Your task to perform on an android device: Go to network settings Image 0: 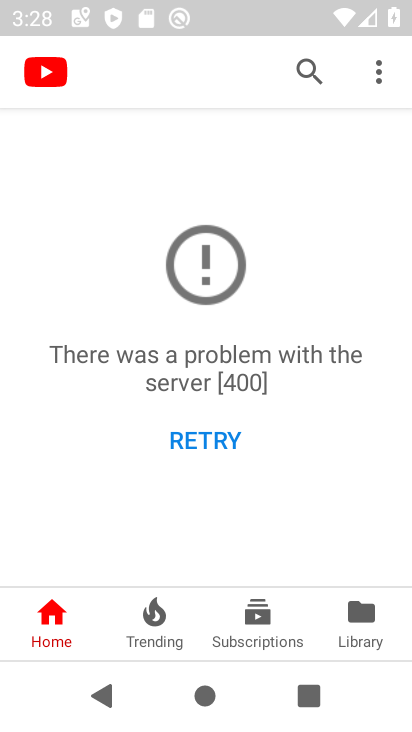
Step 0: press home button
Your task to perform on an android device: Go to network settings Image 1: 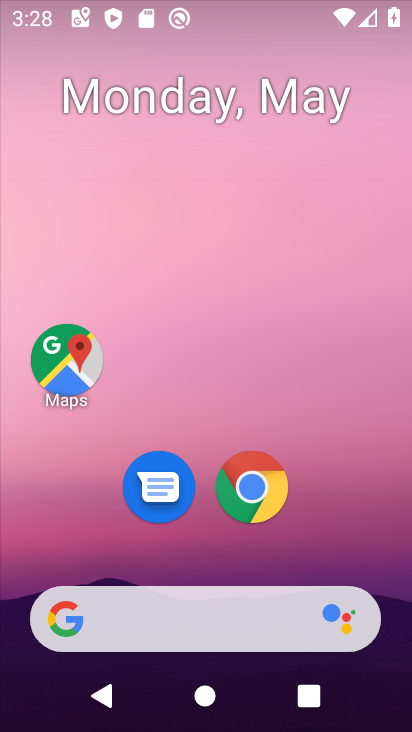
Step 1: drag from (183, 562) to (187, 229)
Your task to perform on an android device: Go to network settings Image 2: 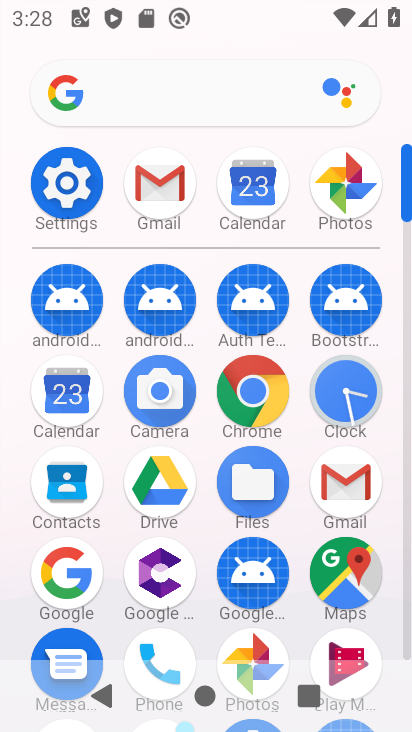
Step 2: click (36, 196)
Your task to perform on an android device: Go to network settings Image 3: 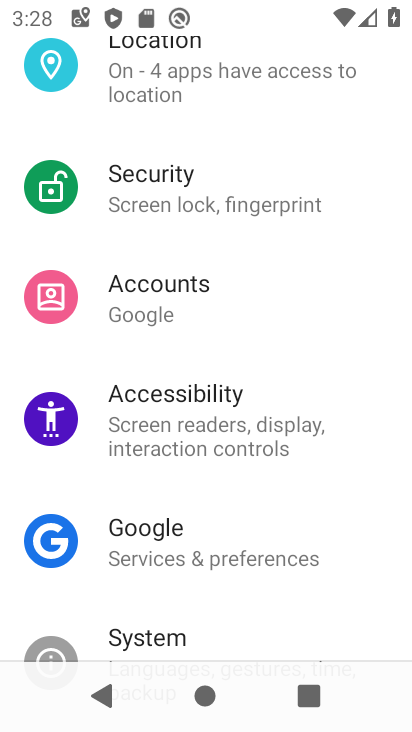
Step 3: drag from (163, 103) to (173, 492)
Your task to perform on an android device: Go to network settings Image 4: 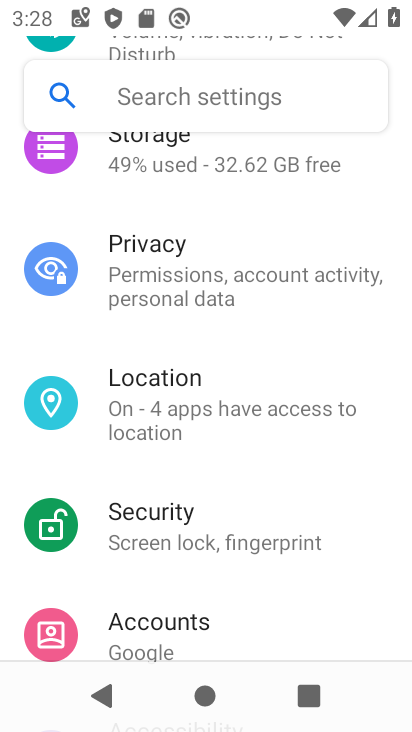
Step 4: drag from (201, 207) to (191, 568)
Your task to perform on an android device: Go to network settings Image 5: 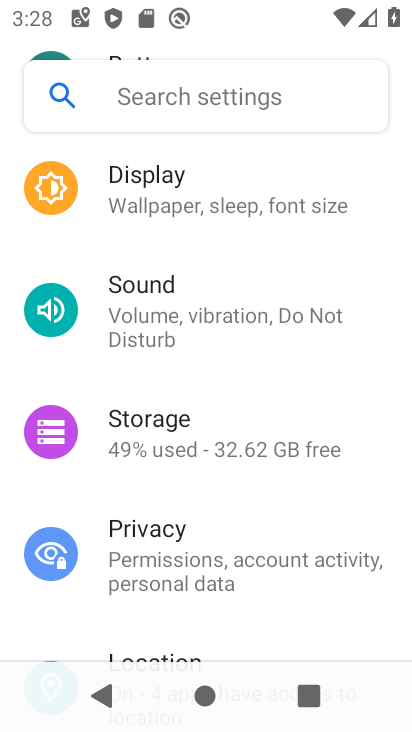
Step 5: drag from (185, 157) to (176, 535)
Your task to perform on an android device: Go to network settings Image 6: 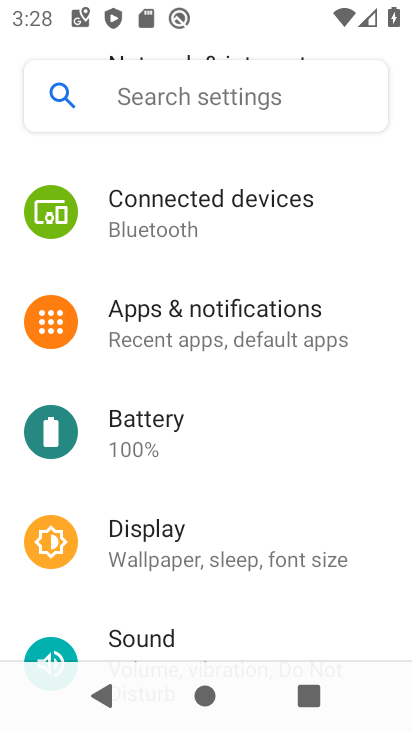
Step 6: drag from (225, 204) to (220, 577)
Your task to perform on an android device: Go to network settings Image 7: 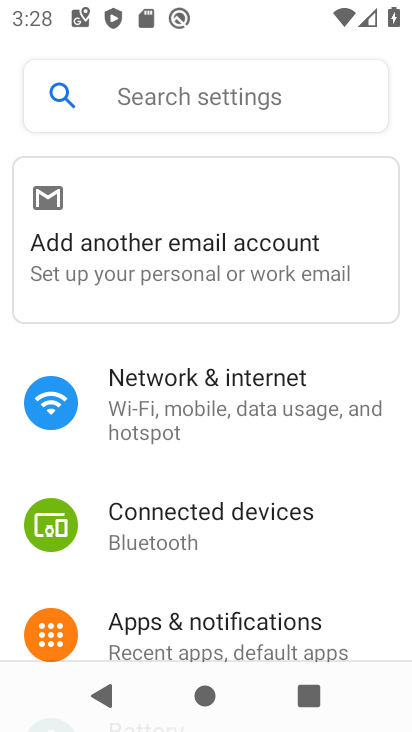
Step 7: click (208, 396)
Your task to perform on an android device: Go to network settings Image 8: 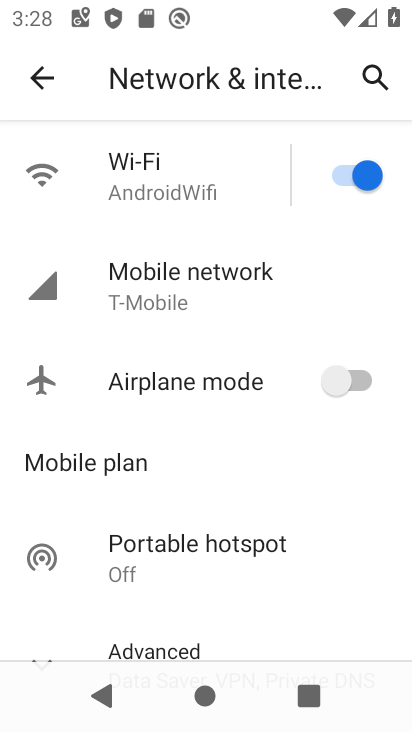
Step 8: click (187, 309)
Your task to perform on an android device: Go to network settings Image 9: 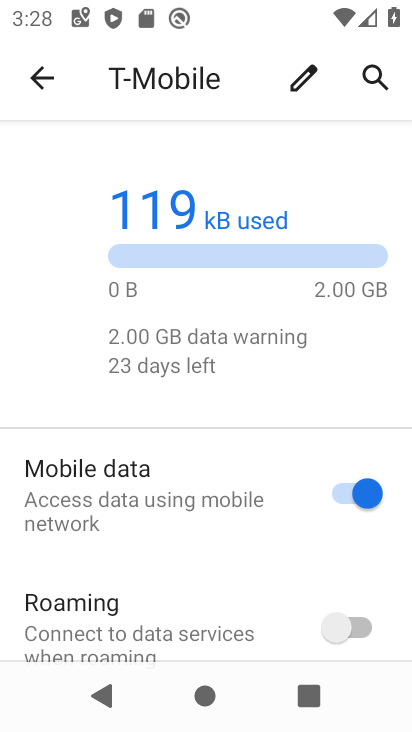
Step 9: task complete